Your task to perform on an android device: turn off improve location accuracy Image 0: 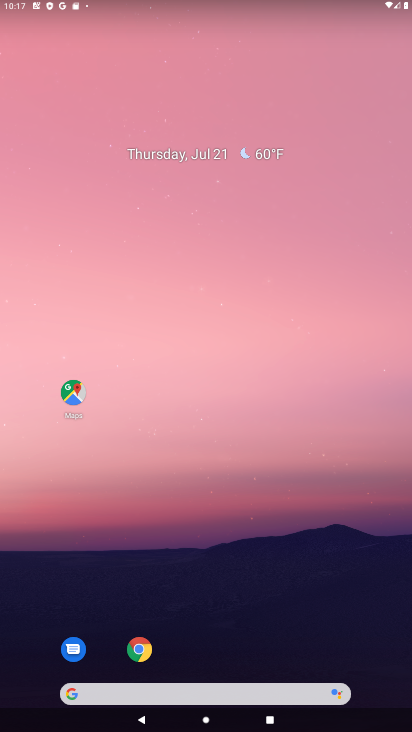
Step 0: drag from (208, 688) to (206, 234)
Your task to perform on an android device: turn off improve location accuracy Image 1: 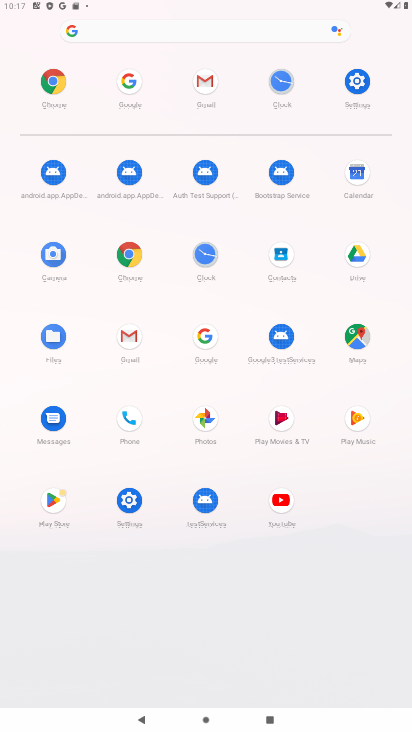
Step 1: click (355, 80)
Your task to perform on an android device: turn off improve location accuracy Image 2: 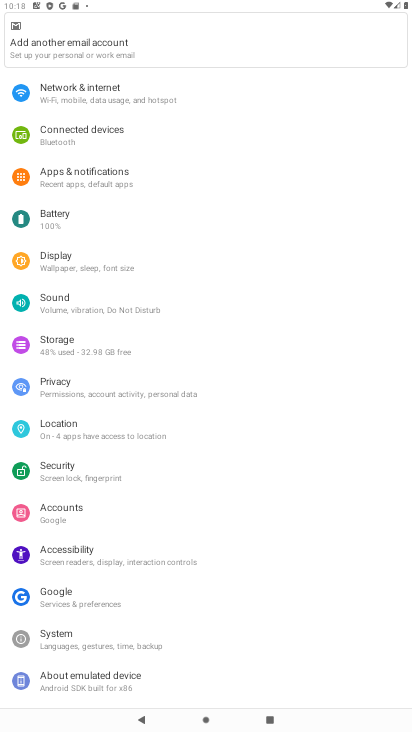
Step 2: click (72, 427)
Your task to perform on an android device: turn off improve location accuracy Image 3: 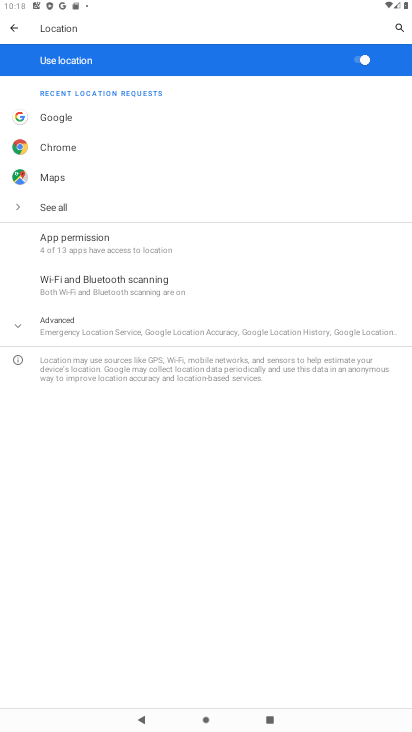
Step 3: click (130, 331)
Your task to perform on an android device: turn off improve location accuracy Image 4: 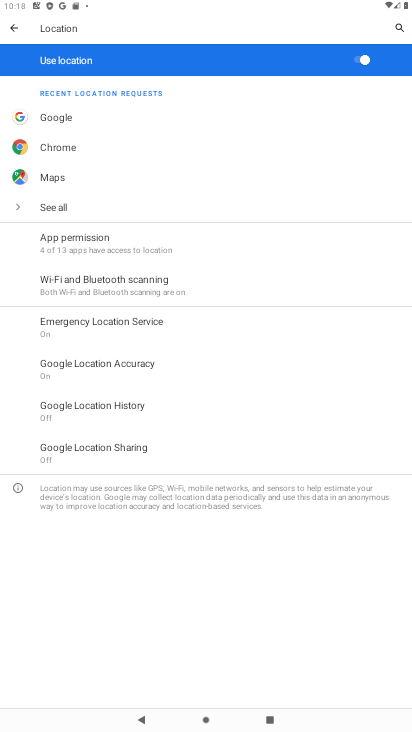
Step 4: click (125, 362)
Your task to perform on an android device: turn off improve location accuracy Image 5: 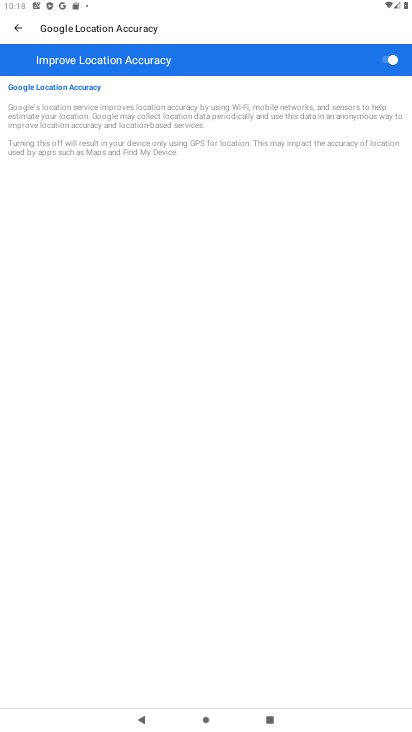
Step 5: click (386, 61)
Your task to perform on an android device: turn off improve location accuracy Image 6: 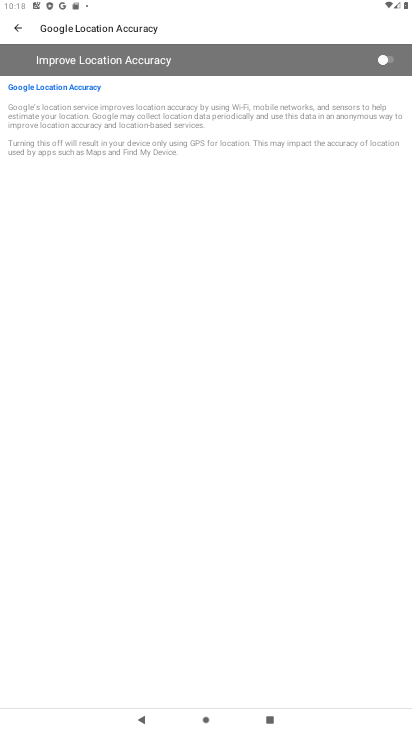
Step 6: task complete